Your task to perform on an android device: change the clock display to digital Image 0: 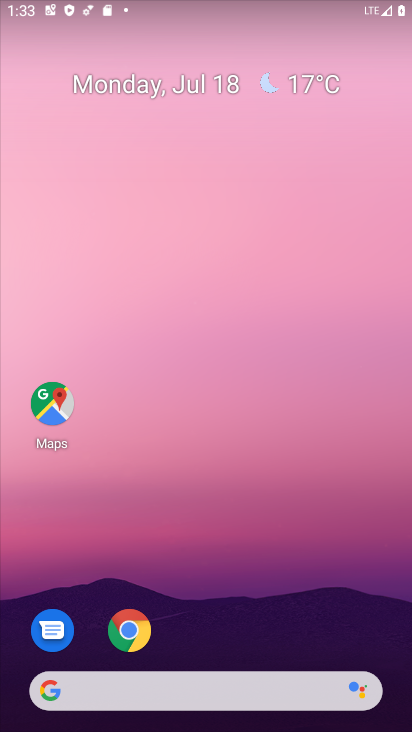
Step 0: drag from (282, 586) to (186, 95)
Your task to perform on an android device: change the clock display to digital Image 1: 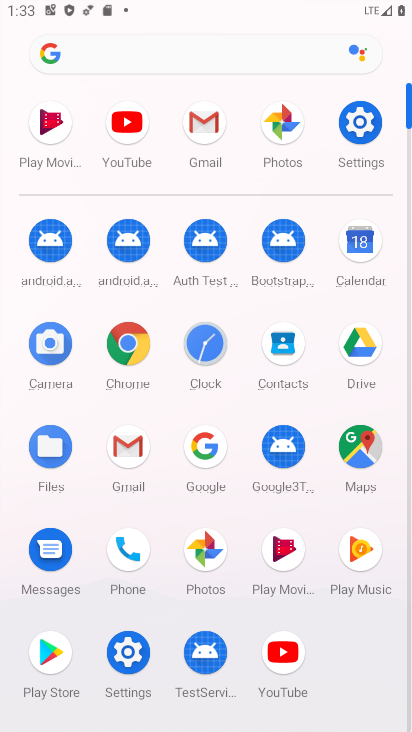
Step 1: click (215, 347)
Your task to perform on an android device: change the clock display to digital Image 2: 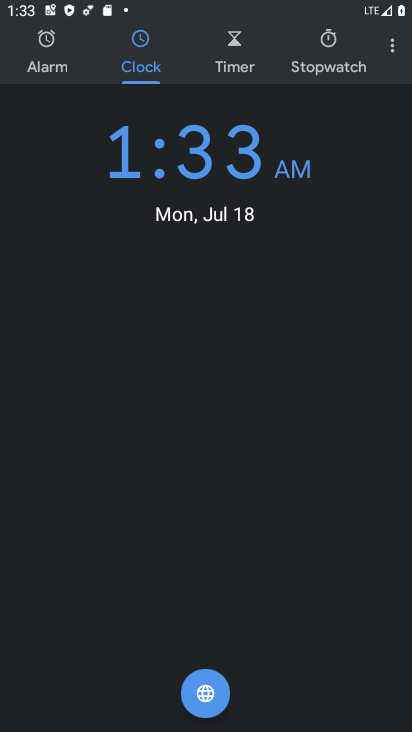
Step 2: task complete